Your task to perform on an android device: stop showing notifications on the lock screen Image 0: 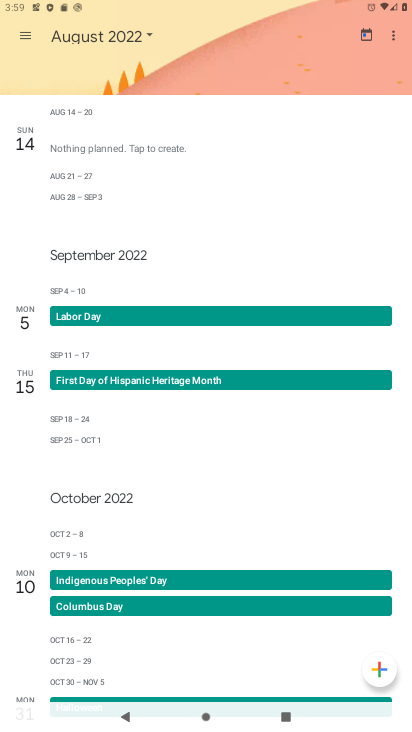
Step 0: press home button
Your task to perform on an android device: stop showing notifications on the lock screen Image 1: 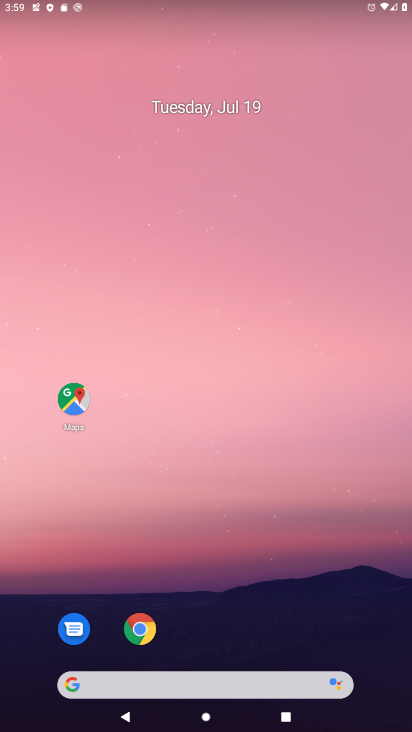
Step 1: drag from (194, 526) to (194, 276)
Your task to perform on an android device: stop showing notifications on the lock screen Image 2: 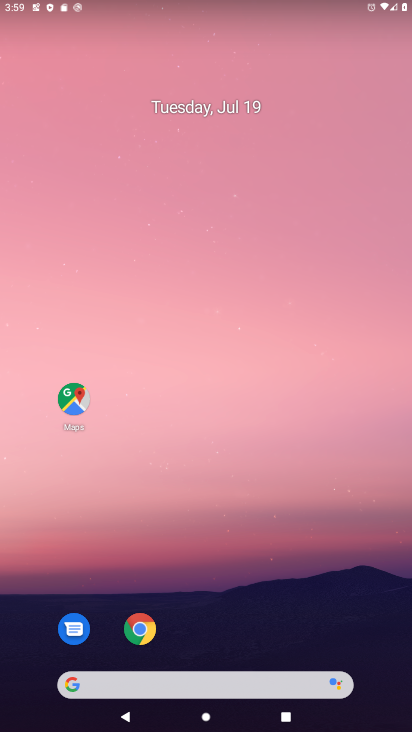
Step 2: drag from (186, 667) to (219, 199)
Your task to perform on an android device: stop showing notifications on the lock screen Image 3: 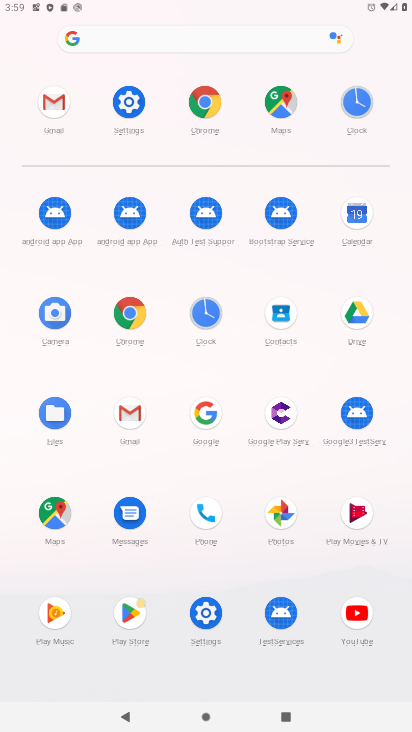
Step 3: click (207, 615)
Your task to perform on an android device: stop showing notifications on the lock screen Image 4: 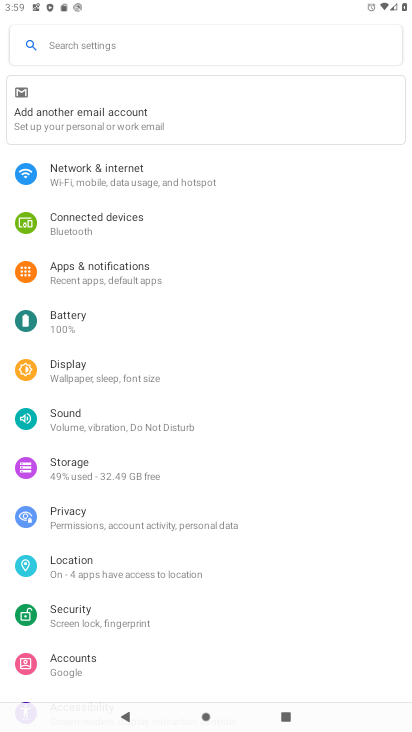
Step 4: click (105, 528)
Your task to perform on an android device: stop showing notifications on the lock screen Image 5: 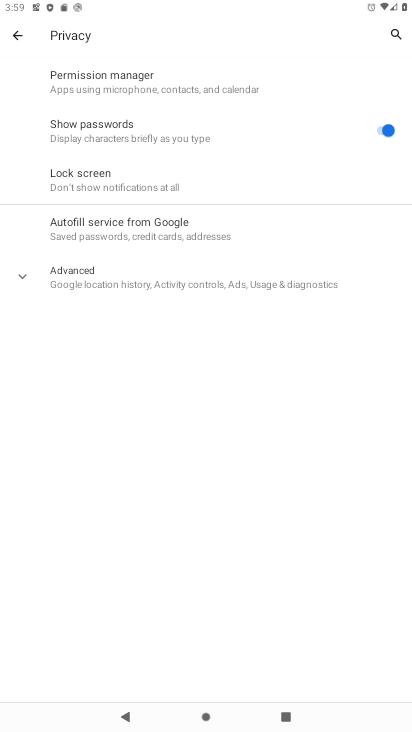
Step 5: click (79, 284)
Your task to perform on an android device: stop showing notifications on the lock screen Image 6: 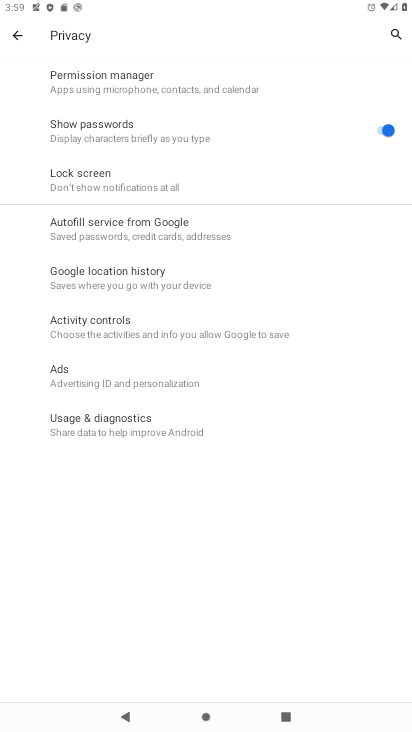
Step 6: click (89, 185)
Your task to perform on an android device: stop showing notifications on the lock screen Image 7: 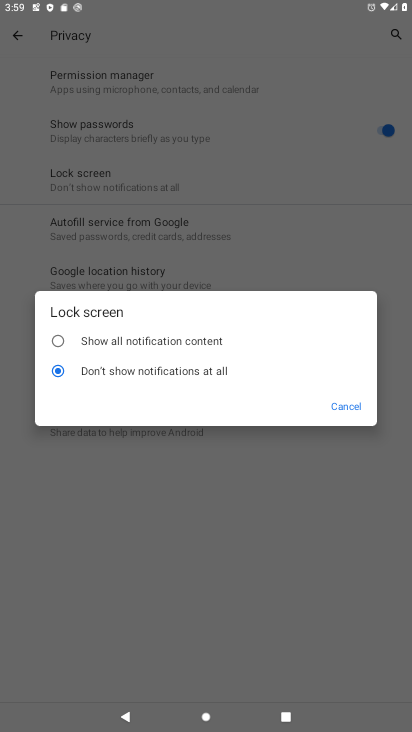
Step 7: click (343, 402)
Your task to perform on an android device: stop showing notifications on the lock screen Image 8: 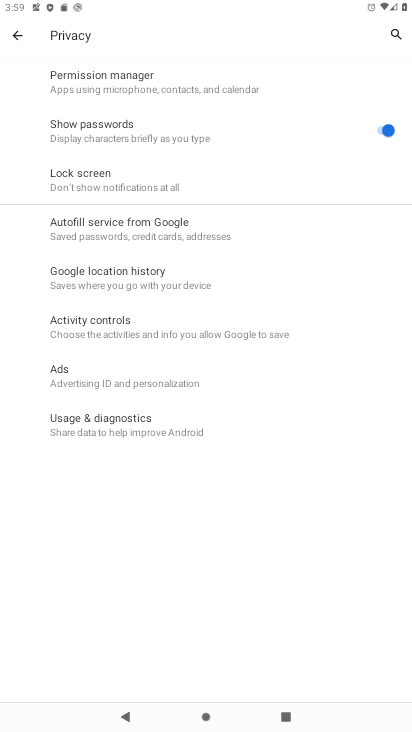
Step 8: task complete